Your task to perform on an android device: What's the weather going to be this weekend? Image 0: 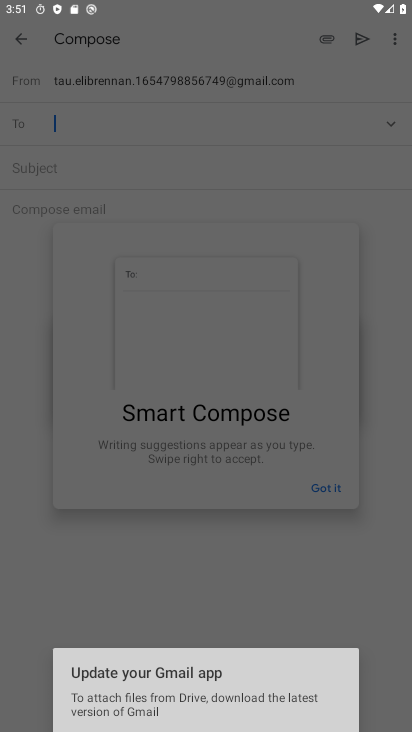
Step 0: press back button
Your task to perform on an android device: What's the weather going to be this weekend? Image 1: 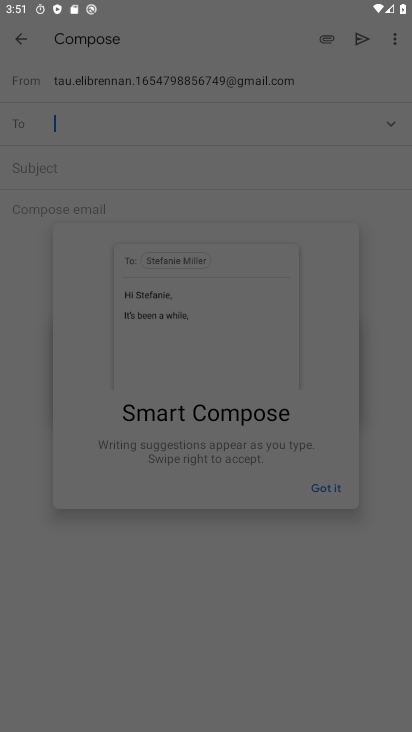
Step 1: press home button
Your task to perform on an android device: What's the weather going to be this weekend? Image 2: 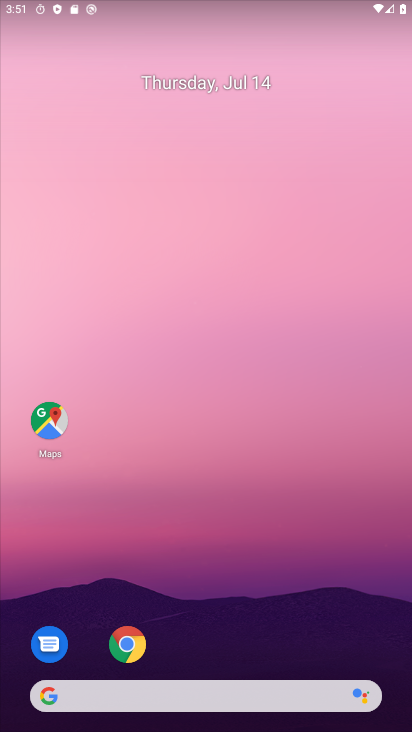
Step 2: drag from (225, 645) to (345, 53)
Your task to perform on an android device: What's the weather going to be this weekend? Image 3: 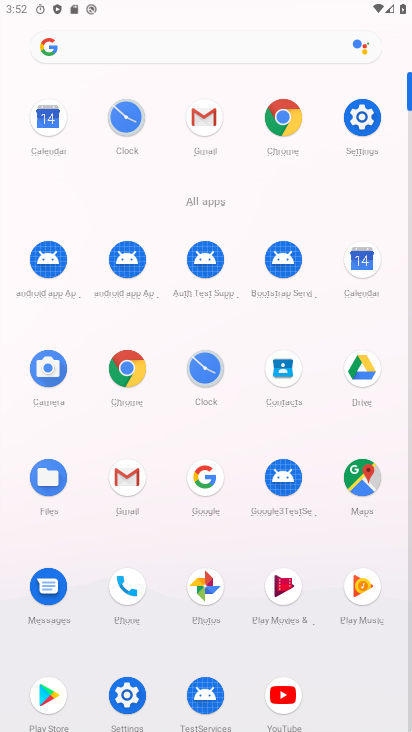
Step 3: click (147, 54)
Your task to perform on an android device: What's the weather going to be this weekend? Image 4: 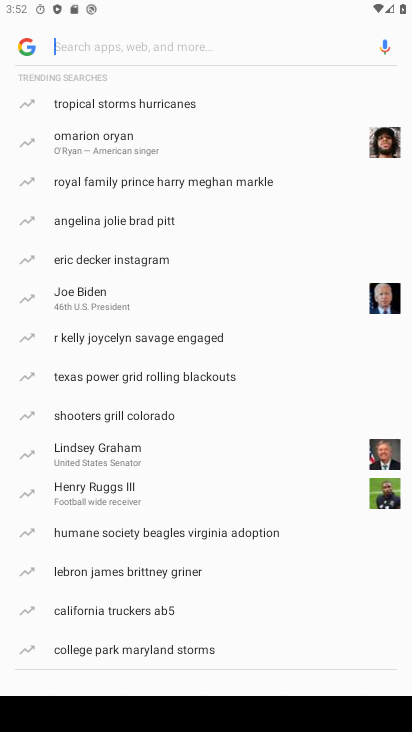
Step 4: type "weather"
Your task to perform on an android device: What's the weather going to be this weekend? Image 5: 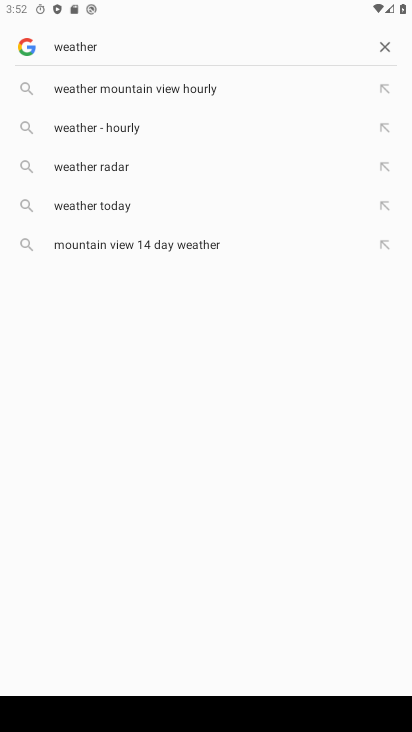
Step 5: click (173, 205)
Your task to perform on an android device: What's the weather going to be this weekend? Image 6: 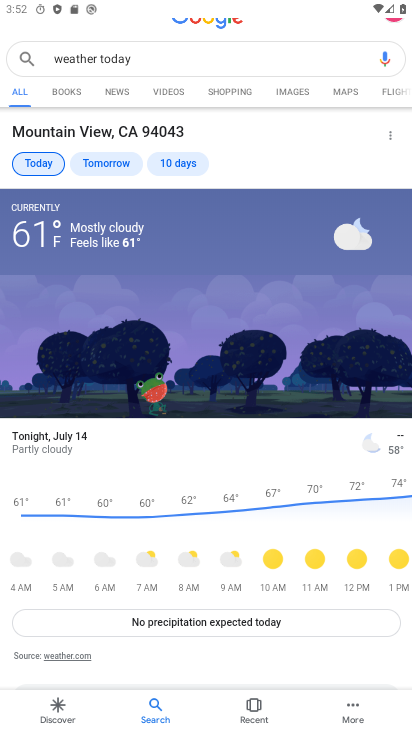
Step 6: click (182, 171)
Your task to perform on an android device: What's the weather going to be this weekend? Image 7: 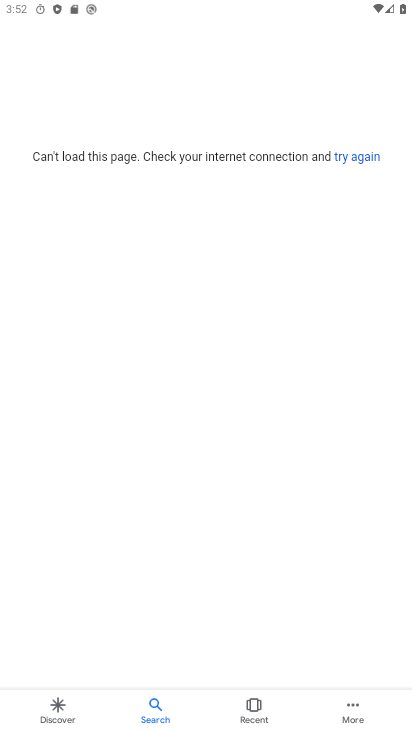
Step 7: task complete